Your task to perform on an android device: Open Google Chrome Image 0: 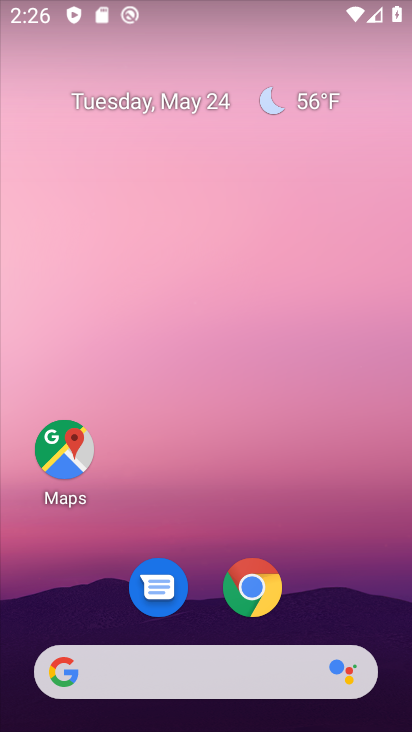
Step 0: click (257, 582)
Your task to perform on an android device: Open Google Chrome Image 1: 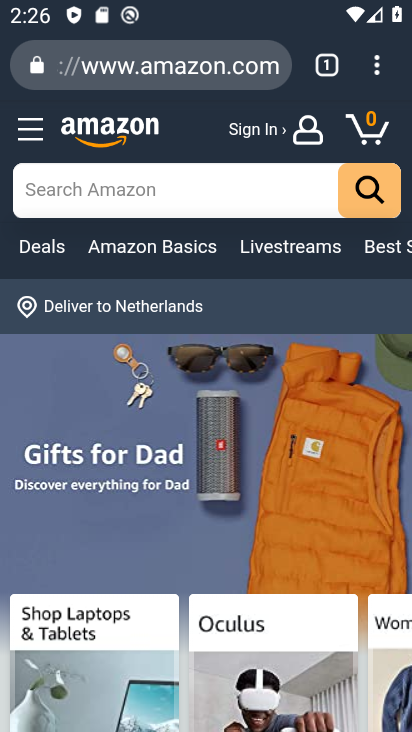
Step 1: task complete